Your task to perform on an android device: turn off picture-in-picture Image 0: 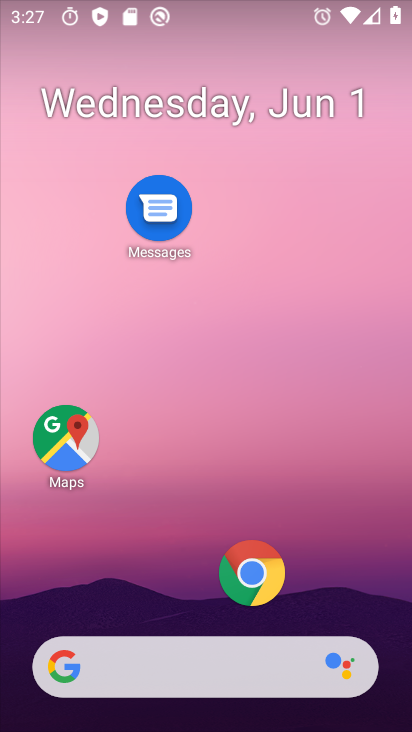
Step 0: click (259, 574)
Your task to perform on an android device: turn off picture-in-picture Image 1: 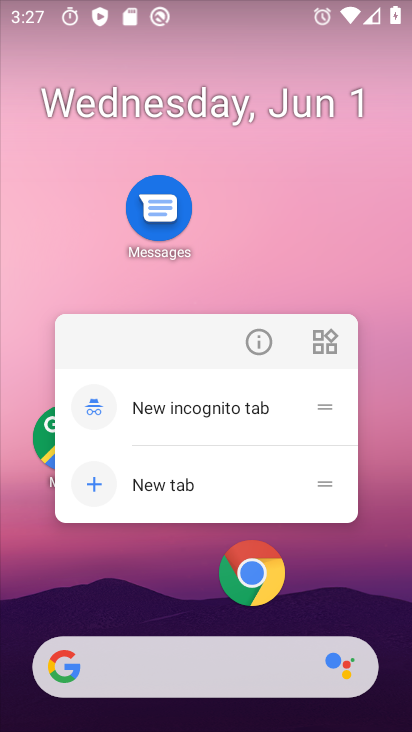
Step 1: click (260, 346)
Your task to perform on an android device: turn off picture-in-picture Image 2: 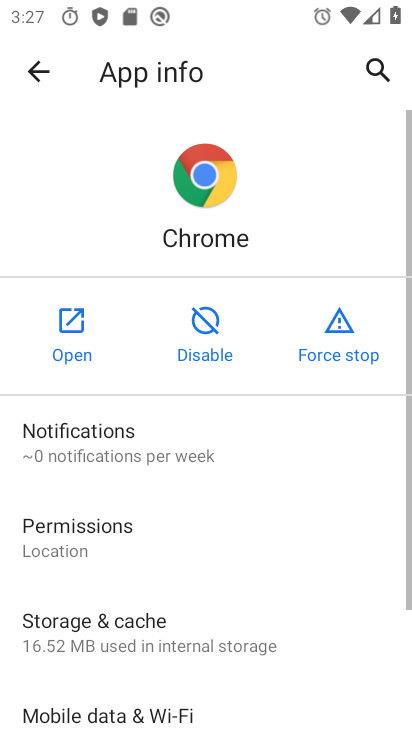
Step 2: drag from (171, 611) to (228, 226)
Your task to perform on an android device: turn off picture-in-picture Image 3: 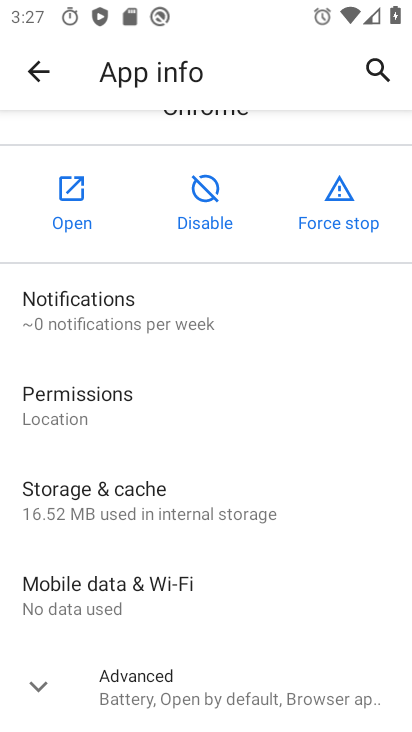
Step 3: drag from (230, 626) to (246, 333)
Your task to perform on an android device: turn off picture-in-picture Image 4: 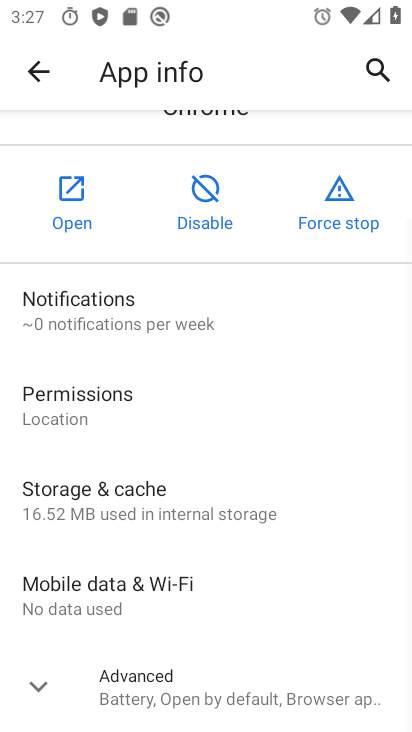
Step 4: click (198, 662)
Your task to perform on an android device: turn off picture-in-picture Image 5: 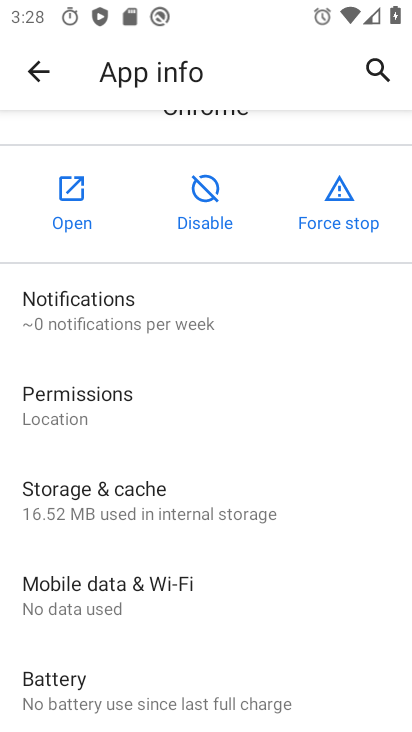
Step 5: drag from (150, 652) to (172, 523)
Your task to perform on an android device: turn off picture-in-picture Image 6: 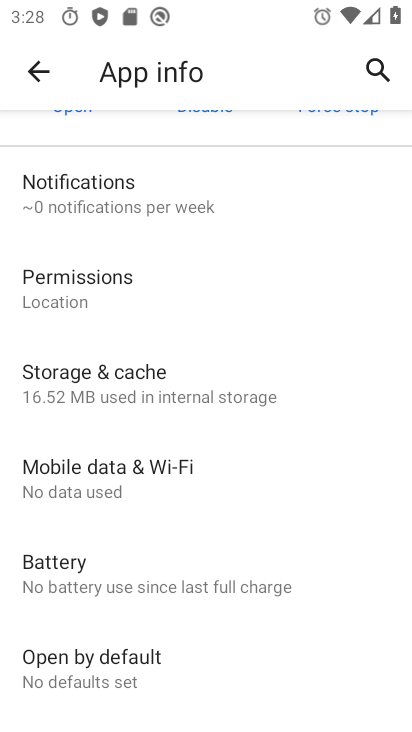
Step 6: drag from (175, 666) to (185, 298)
Your task to perform on an android device: turn off picture-in-picture Image 7: 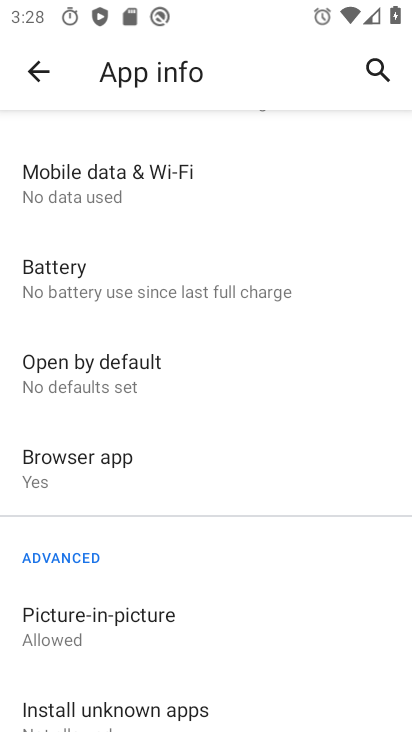
Step 7: click (165, 625)
Your task to perform on an android device: turn off picture-in-picture Image 8: 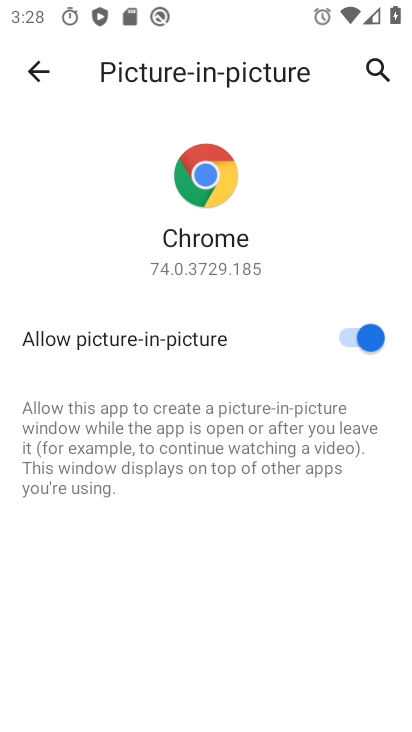
Step 8: click (346, 336)
Your task to perform on an android device: turn off picture-in-picture Image 9: 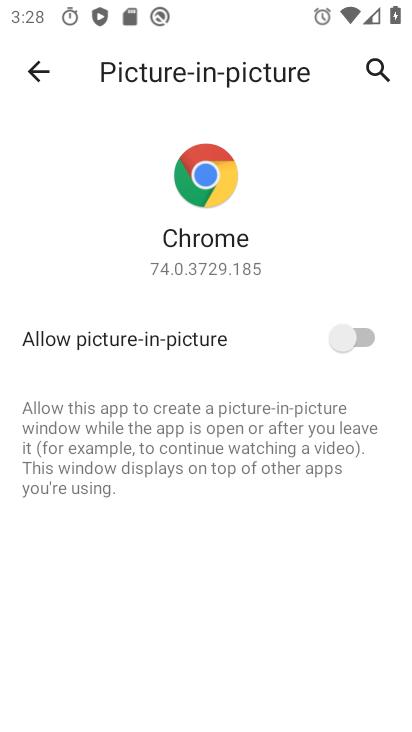
Step 9: task complete